Your task to perform on an android device: Search for razer naga on newegg, select the first entry, and add it to the cart. Image 0: 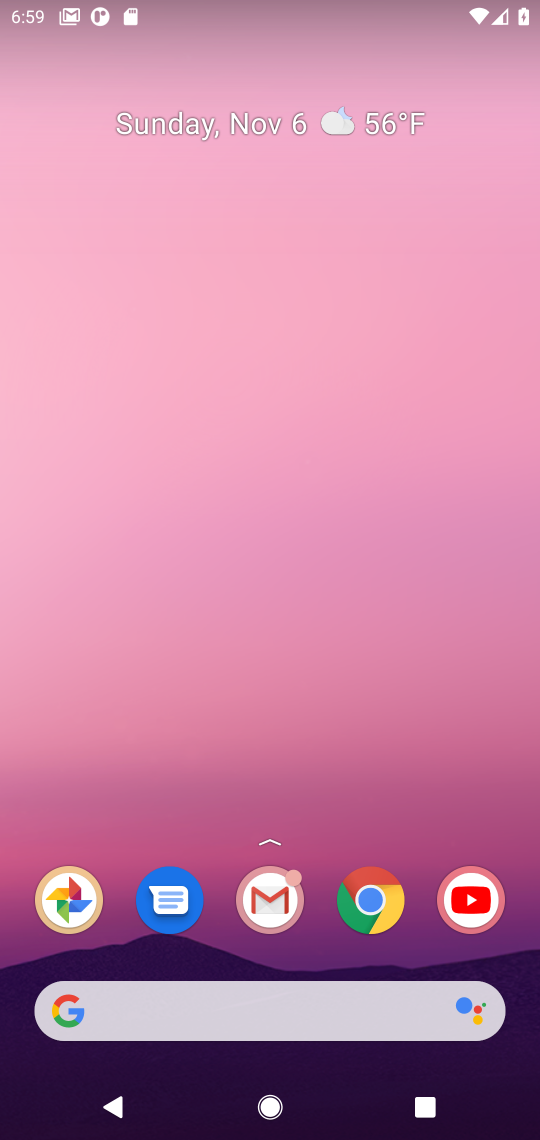
Step 0: drag from (316, 959) to (534, 326)
Your task to perform on an android device: Search for razer naga on newegg, select the first entry, and add it to the cart. Image 1: 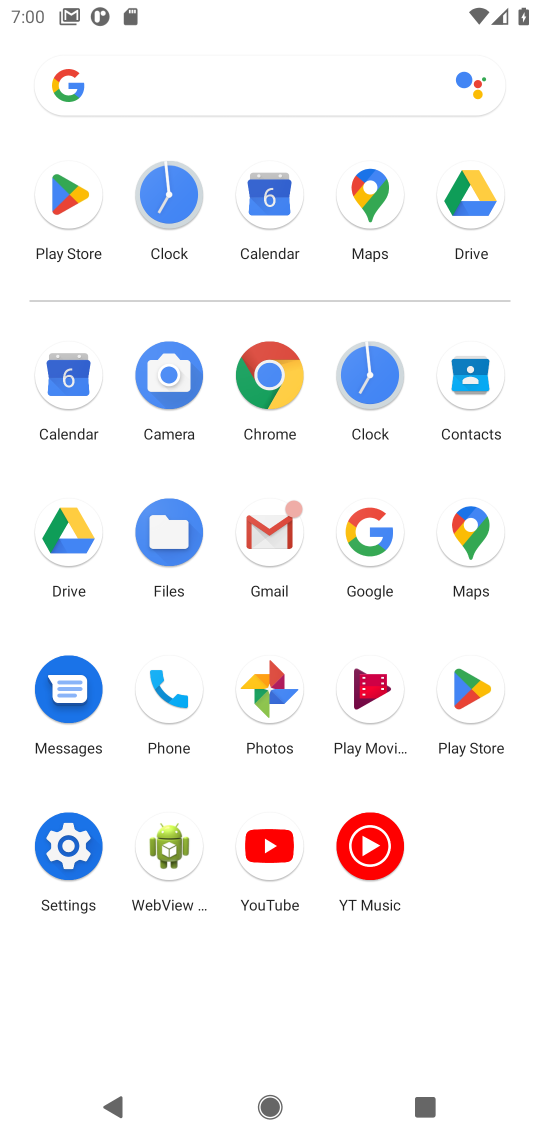
Step 1: click (266, 389)
Your task to perform on an android device: Search for razer naga on newegg, select the first entry, and add it to the cart. Image 2: 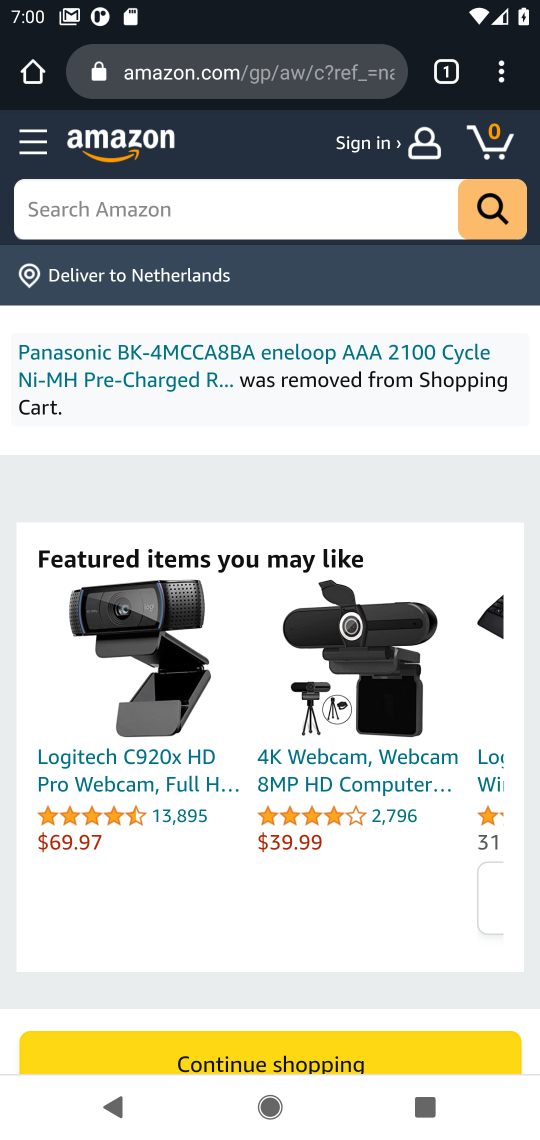
Step 2: click (317, 74)
Your task to perform on an android device: Search for razer naga on newegg, select the first entry, and add it to the cart. Image 3: 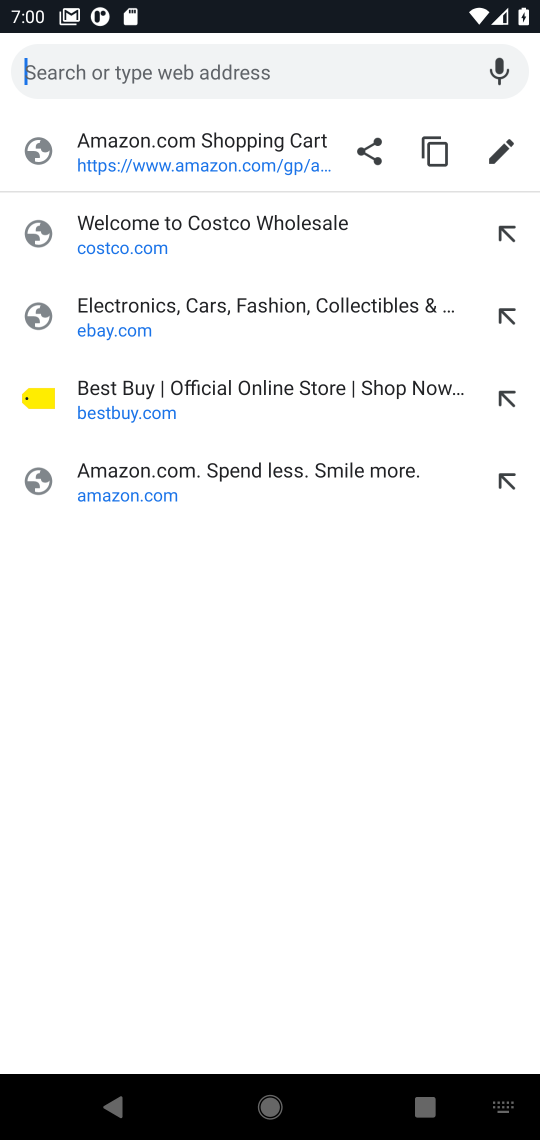
Step 3: type "newegg.com"
Your task to perform on an android device: Search for razer naga on newegg, select the first entry, and add it to the cart. Image 4: 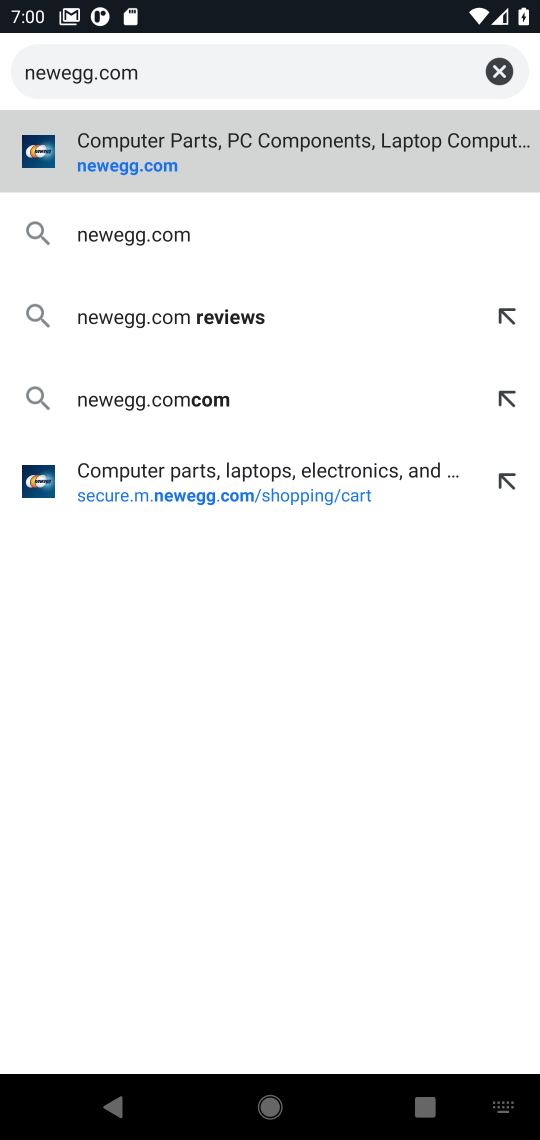
Step 4: press enter
Your task to perform on an android device: Search for razer naga on newegg, select the first entry, and add it to the cart. Image 5: 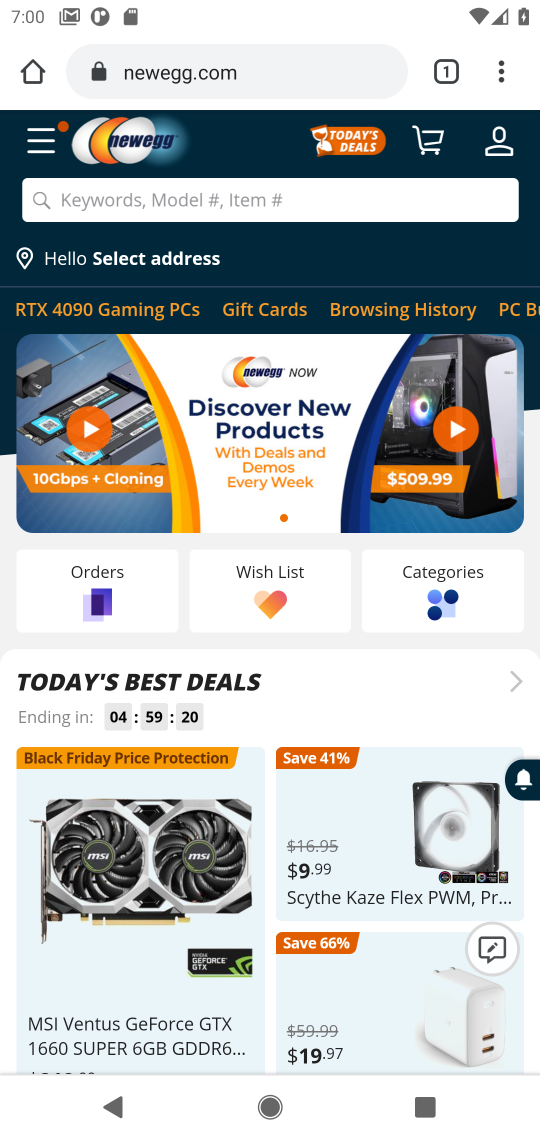
Step 5: click (356, 200)
Your task to perform on an android device: Search for razer naga on newegg, select the first entry, and add it to the cart. Image 6: 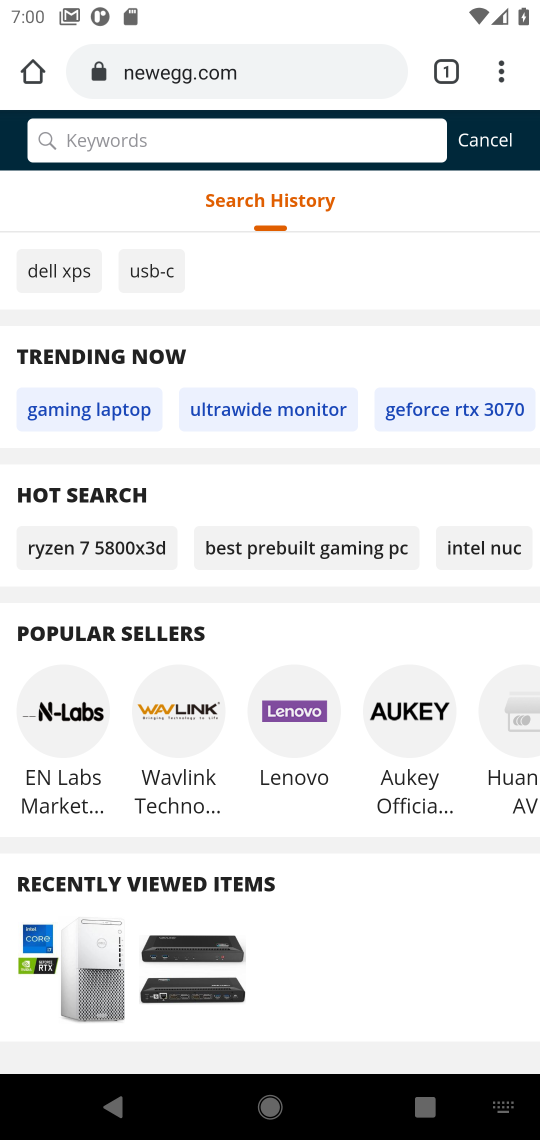
Step 6: type "razer naga"
Your task to perform on an android device: Search for razer naga on newegg, select the first entry, and add it to the cart. Image 7: 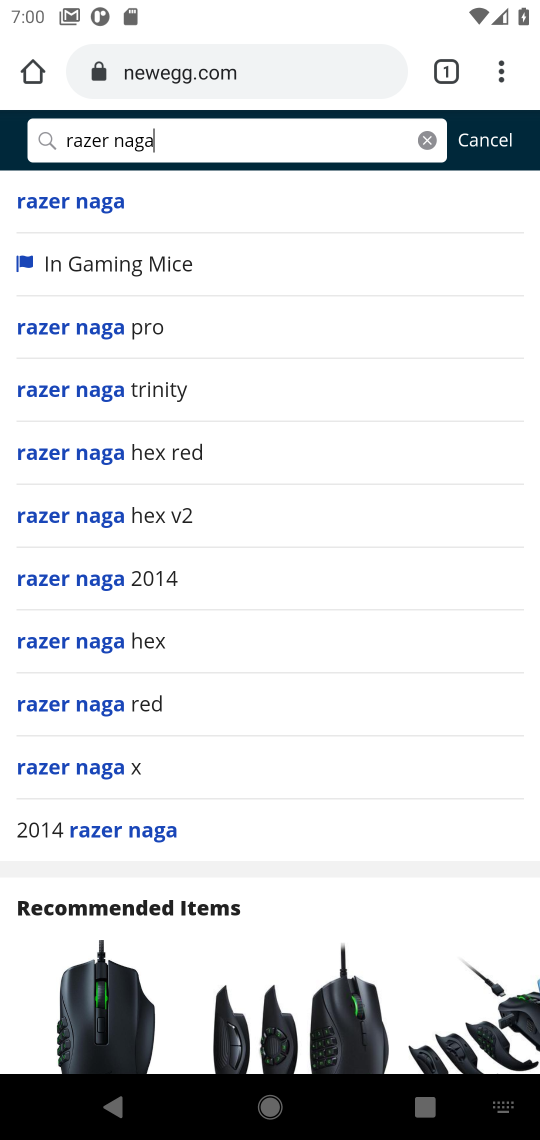
Step 7: press enter
Your task to perform on an android device: Search for razer naga on newegg, select the first entry, and add it to the cart. Image 8: 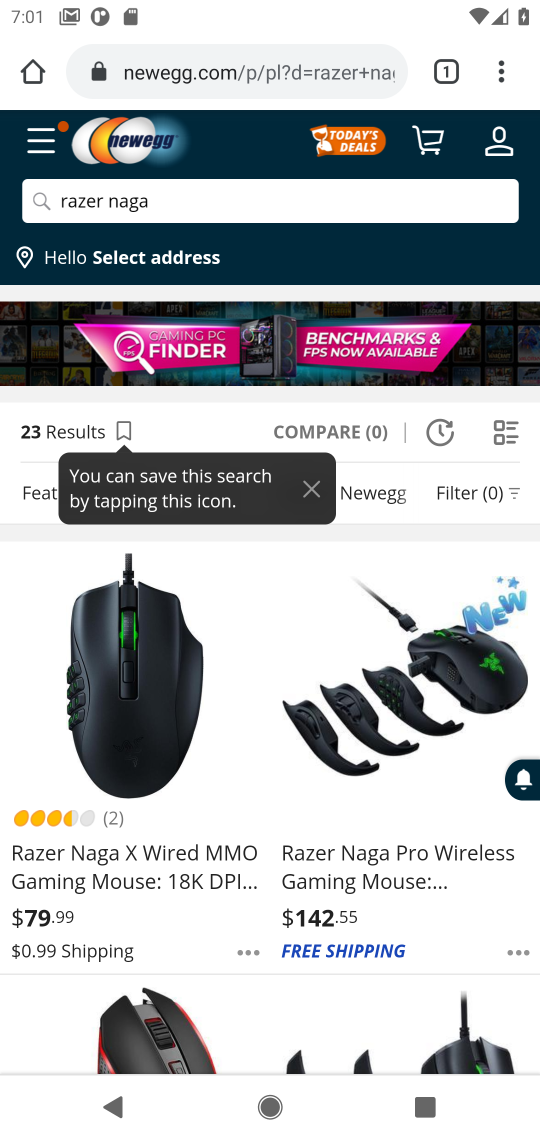
Step 8: click (123, 874)
Your task to perform on an android device: Search for razer naga on newegg, select the first entry, and add it to the cart. Image 9: 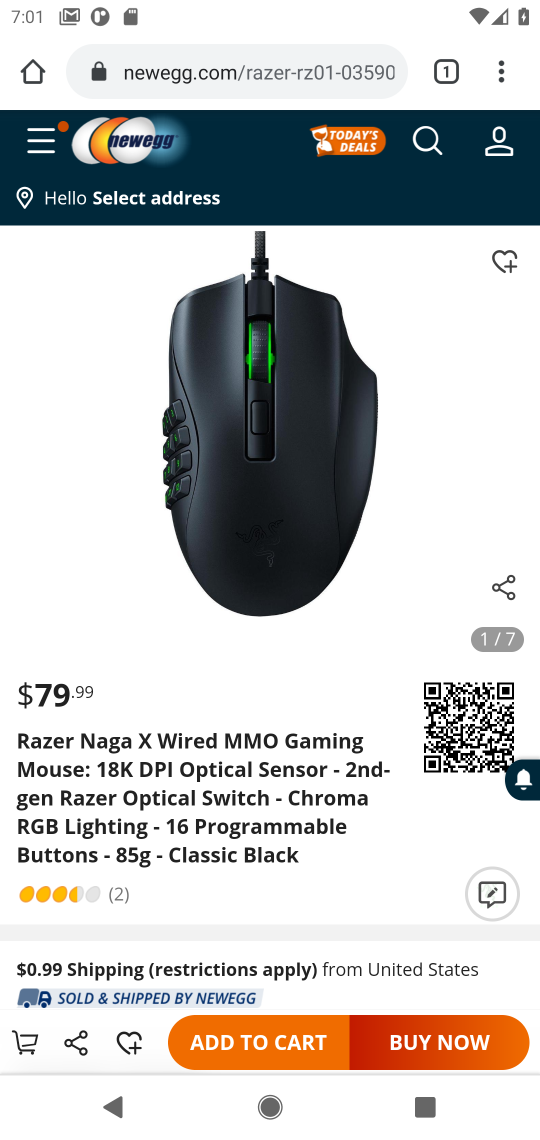
Step 9: click (270, 1045)
Your task to perform on an android device: Search for razer naga on newegg, select the first entry, and add it to the cart. Image 10: 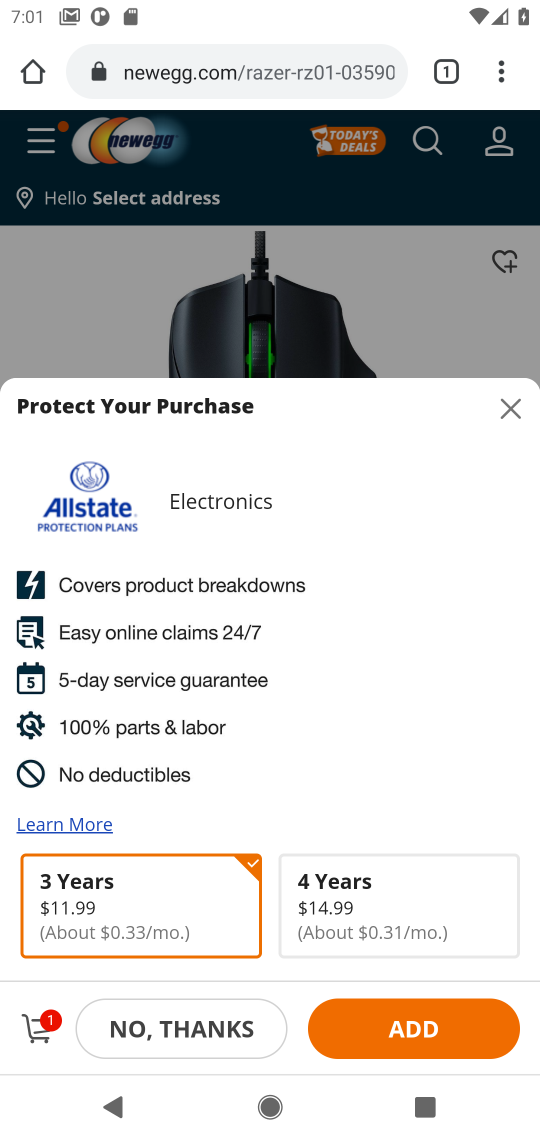
Step 10: task complete